Your task to perform on an android device: turn off priority inbox in the gmail app Image 0: 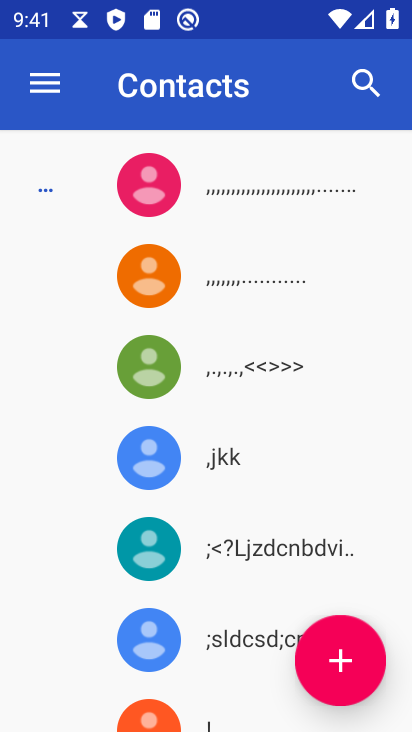
Step 0: press home button
Your task to perform on an android device: turn off priority inbox in the gmail app Image 1: 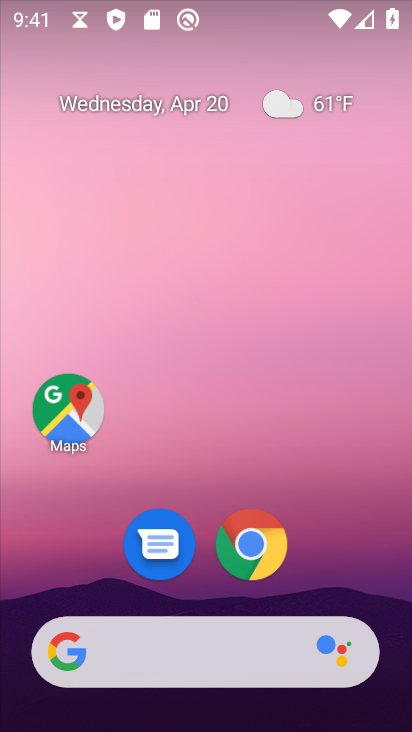
Step 1: drag from (126, 647) to (293, 3)
Your task to perform on an android device: turn off priority inbox in the gmail app Image 2: 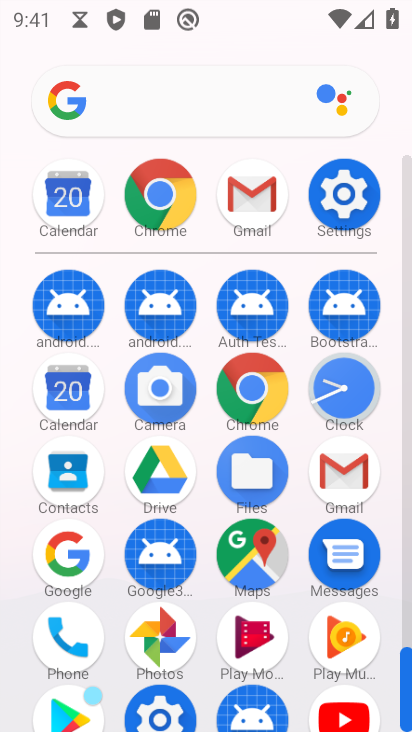
Step 2: click (242, 209)
Your task to perform on an android device: turn off priority inbox in the gmail app Image 3: 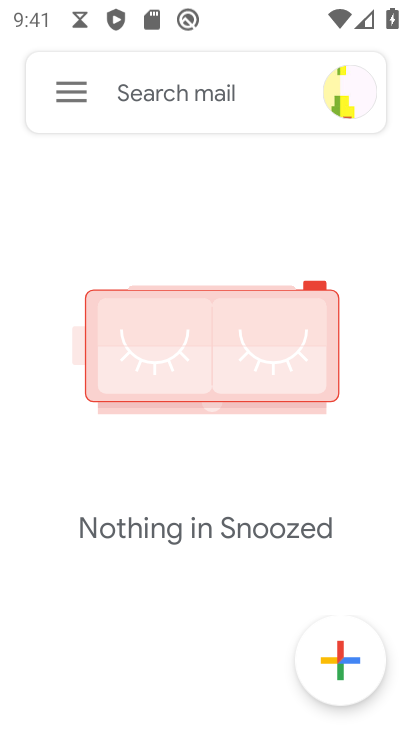
Step 3: click (74, 85)
Your task to perform on an android device: turn off priority inbox in the gmail app Image 4: 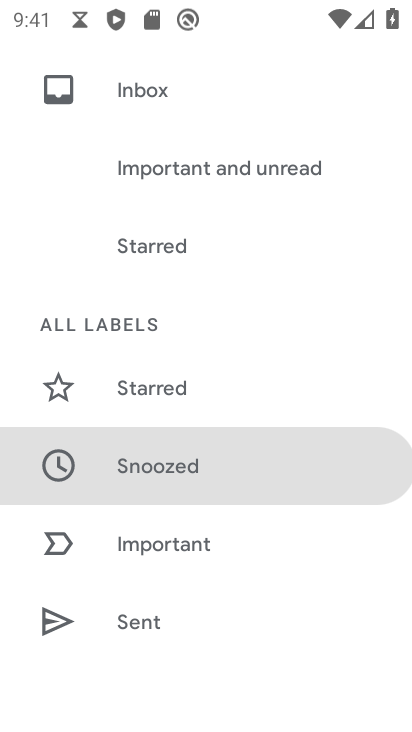
Step 4: drag from (214, 613) to (357, 102)
Your task to perform on an android device: turn off priority inbox in the gmail app Image 5: 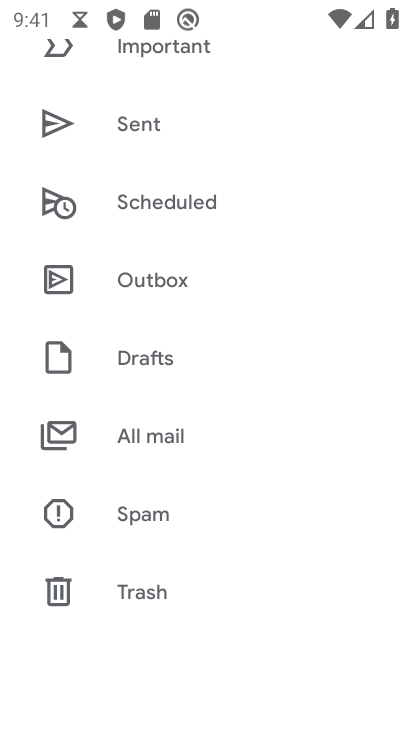
Step 5: drag from (232, 585) to (338, 34)
Your task to perform on an android device: turn off priority inbox in the gmail app Image 6: 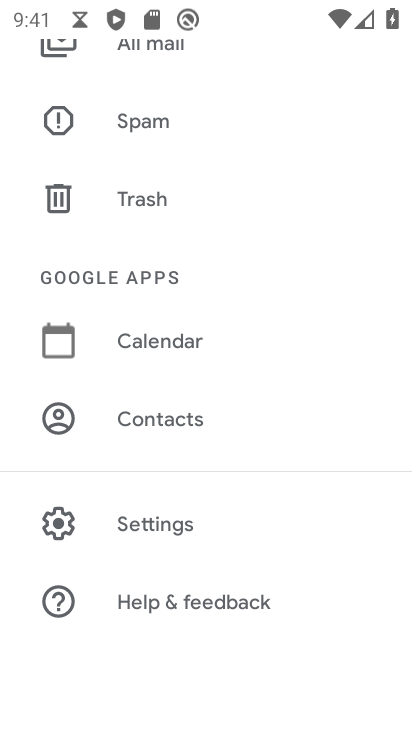
Step 6: click (164, 523)
Your task to perform on an android device: turn off priority inbox in the gmail app Image 7: 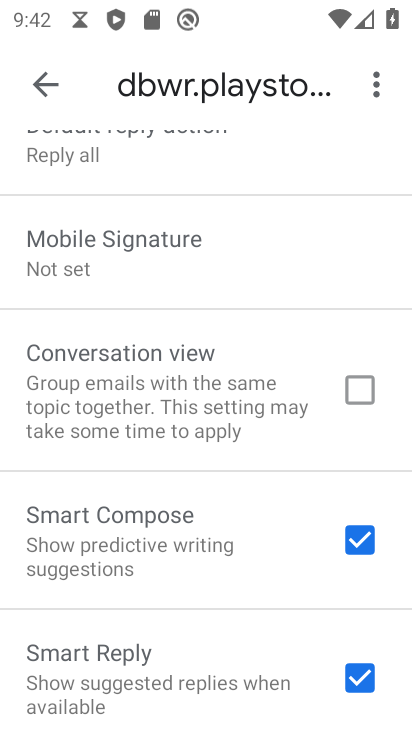
Step 7: drag from (252, 161) to (281, 640)
Your task to perform on an android device: turn off priority inbox in the gmail app Image 8: 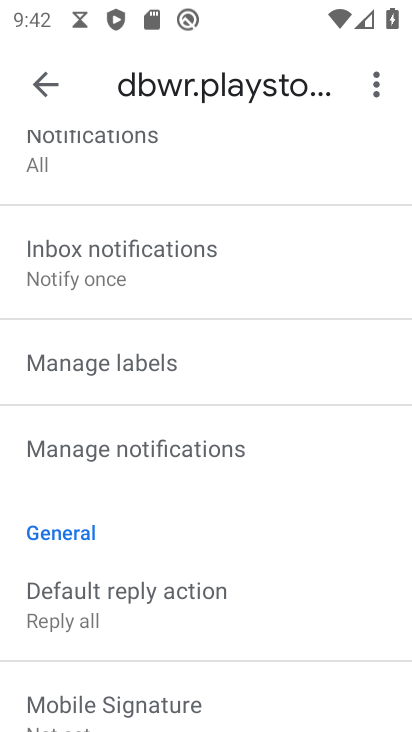
Step 8: drag from (257, 170) to (239, 633)
Your task to perform on an android device: turn off priority inbox in the gmail app Image 9: 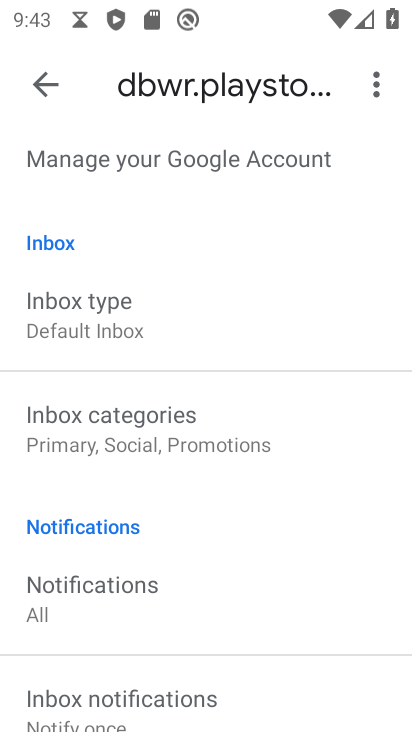
Step 9: click (101, 318)
Your task to perform on an android device: turn off priority inbox in the gmail app Image 10: 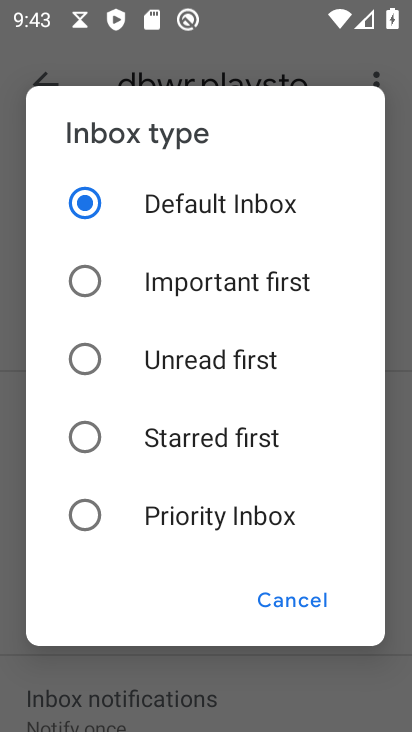
Step 10: task complete